Your task to perform on an android device: open wifi settings Image 0: 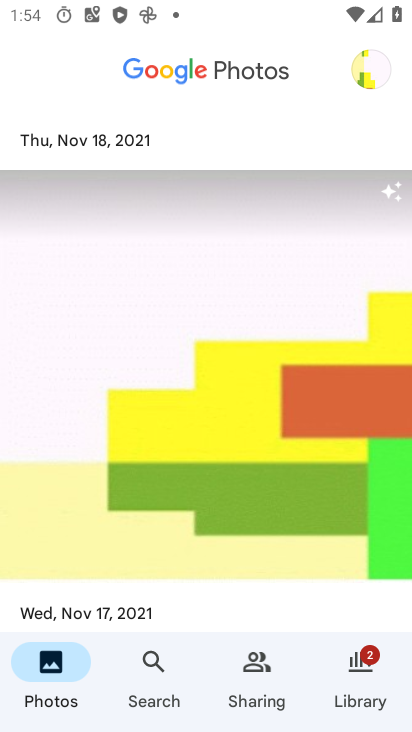
Step 0: press home button
Your task to perform on an android device: open wifi settings Image 1: 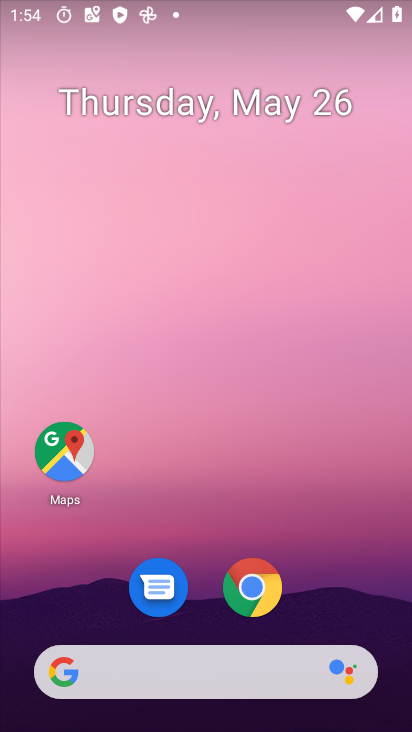
Step 1: drag from (387, 622) to (403, 331)
Your task to perform on an android device: open wifi settings Image 2: 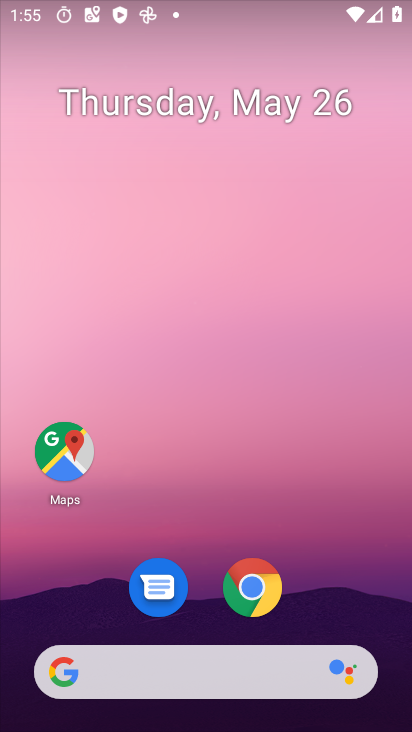
Step 2: drag from (359, 610) to (383, 192)
Your task to perform on an android device: open wifi settings Image 3: 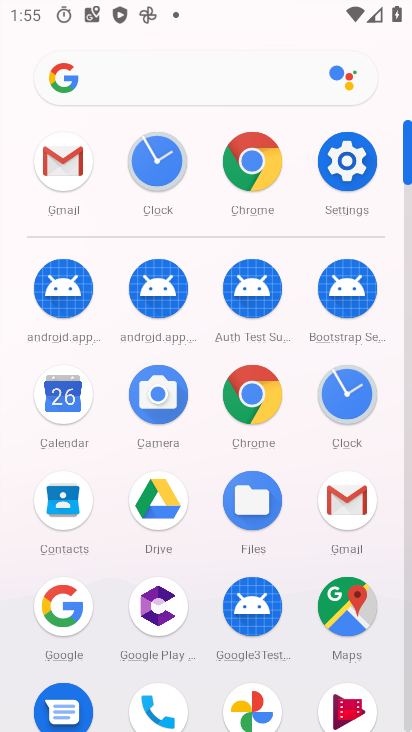
Step 3: click (349, 185)
Your task to perform on an android device: open wifi settings Image 4: 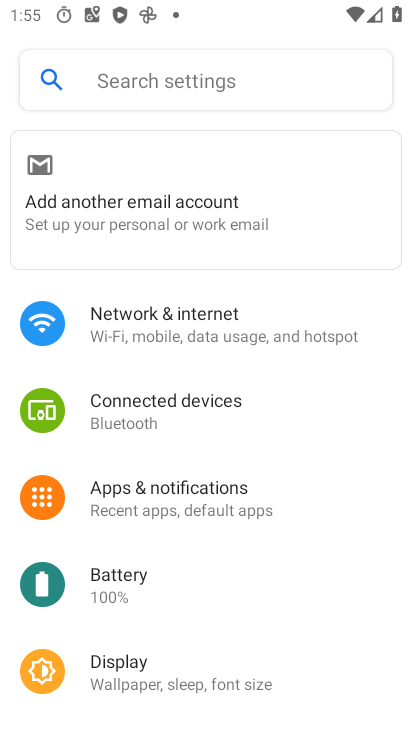
Step 4: drag from (335, 567) to (334, 471)
Your task to perform on an android device: open wifi settings Image 5: 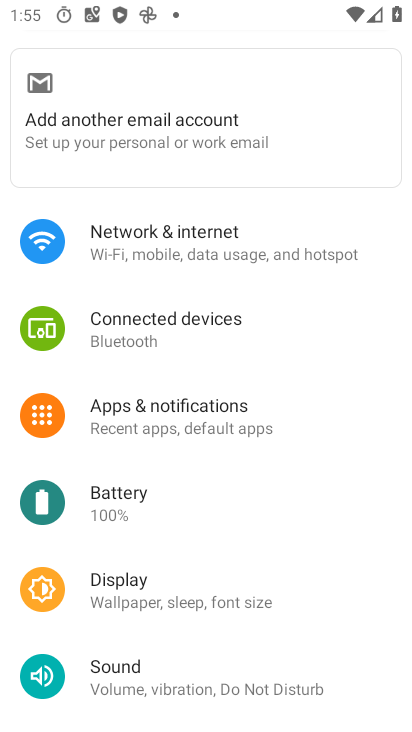
Step 5: drag from (344, 586) to (347, 491)
Your task to perform on an android device: open wifi settings Image 6: 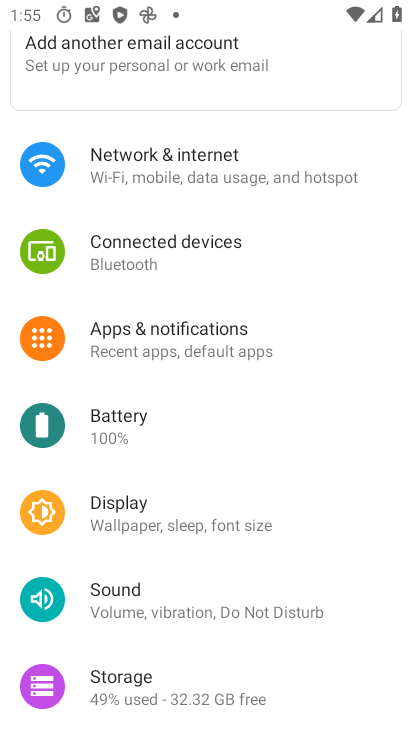
Step 6: drag from (347, 569) to (355, 426)
Your task to perform on an android device: open wifi settings Image 7: 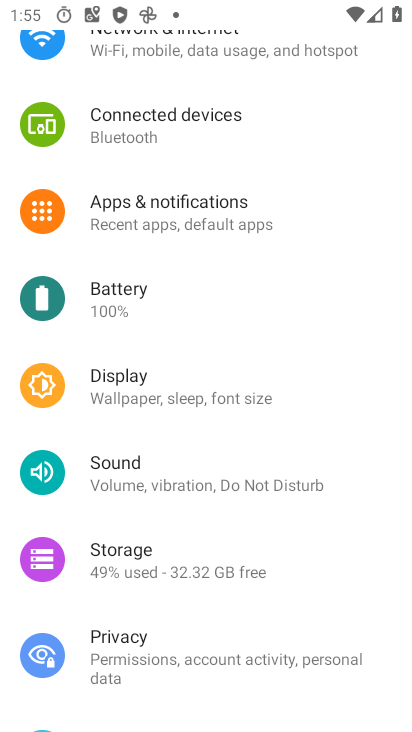
Step 7: drag from (354, 573) to (359, 463)
Your task to perform on an android device: open wifi settings Image 8: 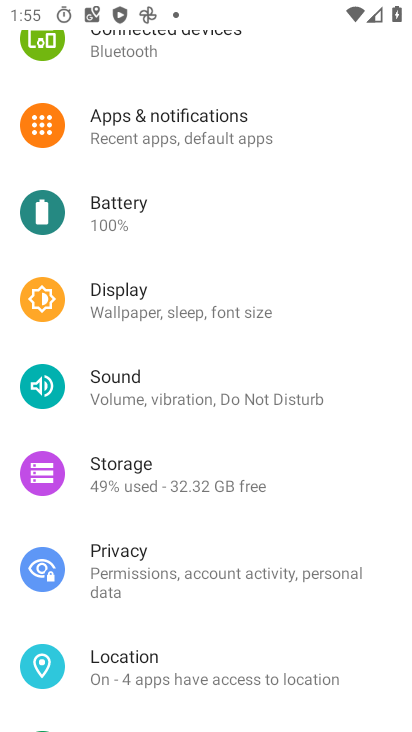
Step 8: drag from (353, 587) to (362, 488)
Your task to perform on an android device: open wifi settings Image 9: 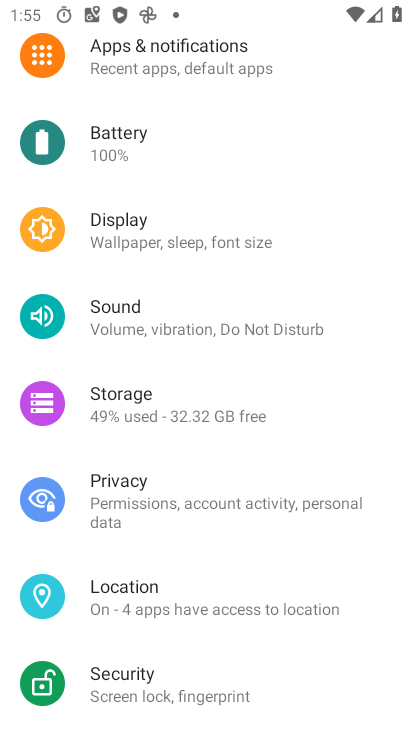
Step 9: drag from (358, 583) to (358, 489)
Your task to perform on an android device: open wifi settings Image 10: 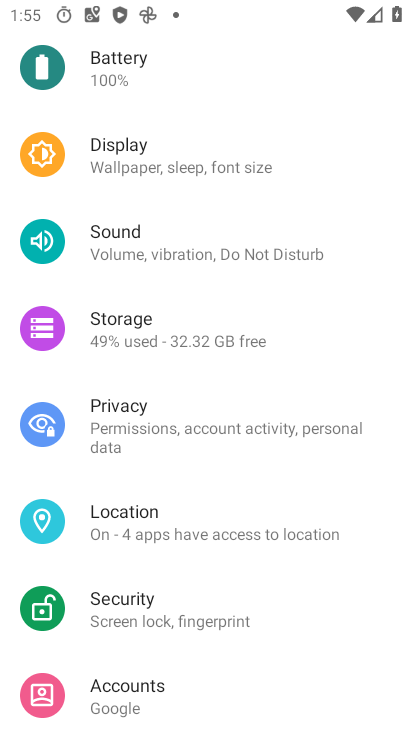
Step 10: drag from (363, 602) to (373, 504)
Your task to perform on an android device: open wifi settings Image 11: 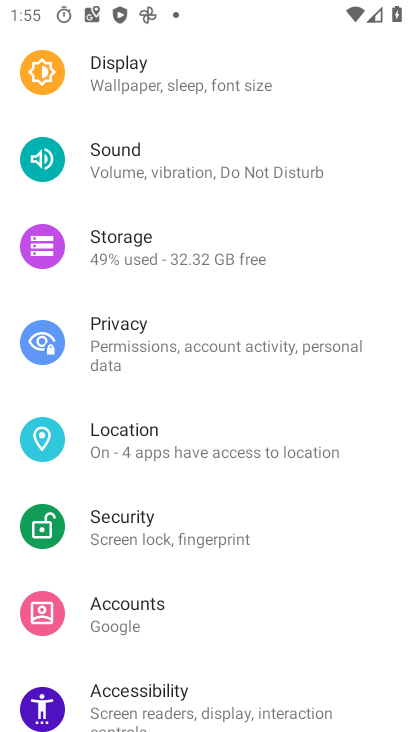
Step 11: drag from (367, 602) to (368, 509)
Your task to perform on an android device: open wifi settings Image 12: 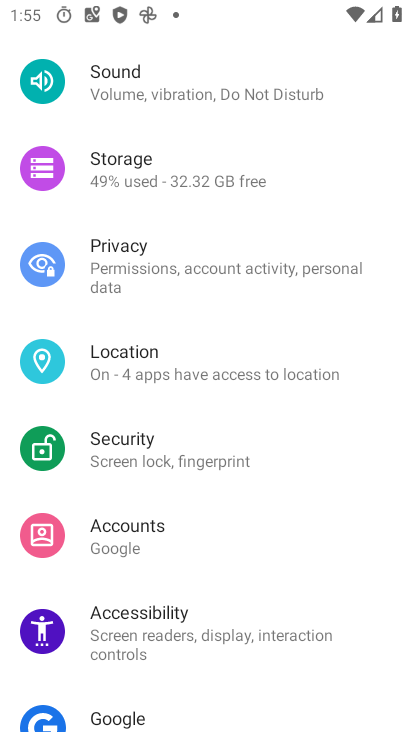
Step 12: drag from (362, 580) to (365, 435)
Your task to perform on an android device: open wifi settings Image 13: 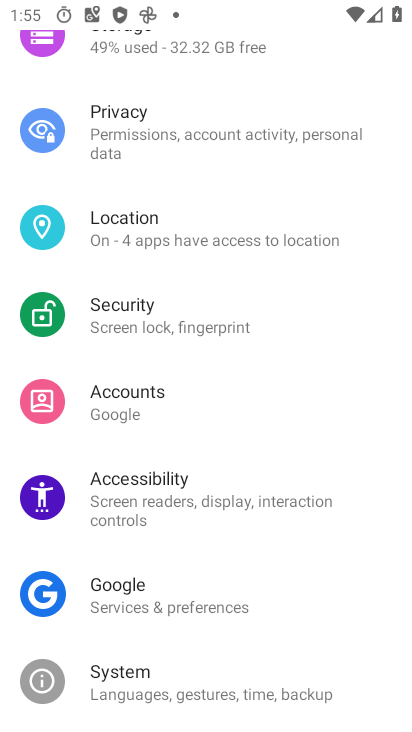
Step 13: drag from (362, 564) to (365, 454)
Your task to perform on an android device: open wifi settings Image 14: 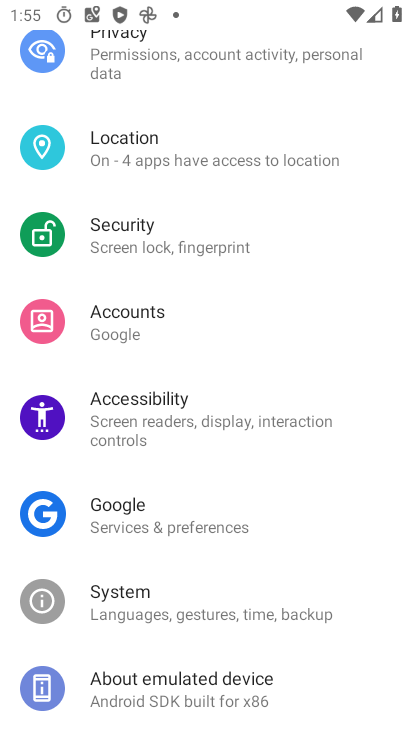
Step 14: drag from (363, 400) to (363, 518)
Your task to perform on an android device: open wifi settings Image 15: 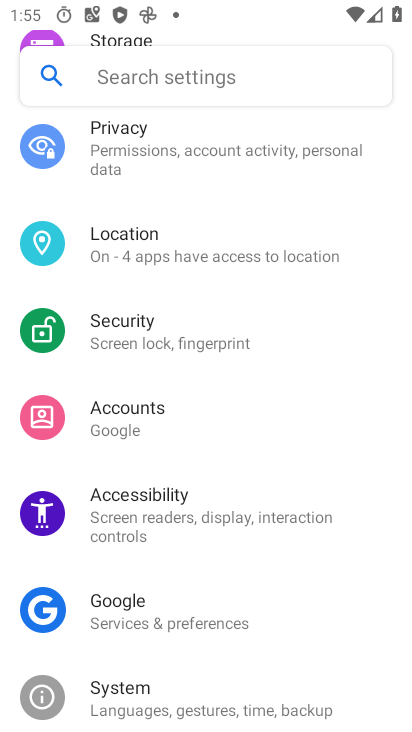
Step 15: drag from (361, 395) to (358, 488)
Your task to perform on an android device: open wifi settings Image 16: 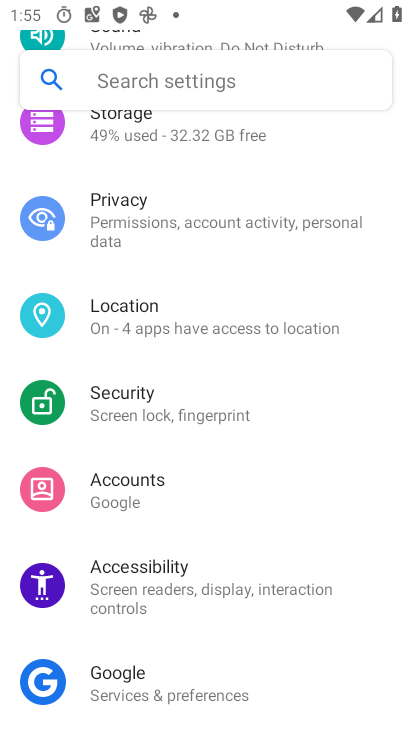
Step 16: drag from (363, 358) to (363, 452)
Your task to perform on an android device: open wifi settings Image 17: 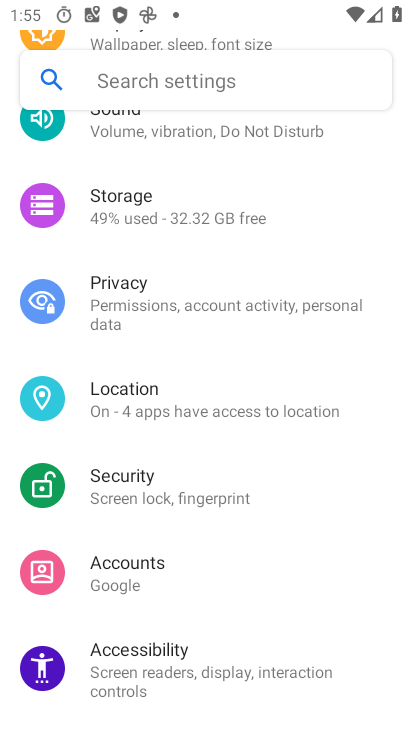
Step 17: drag from (360, 354) to (360, 427)
Your task to perform on an android device: open wifi settings Image 18: 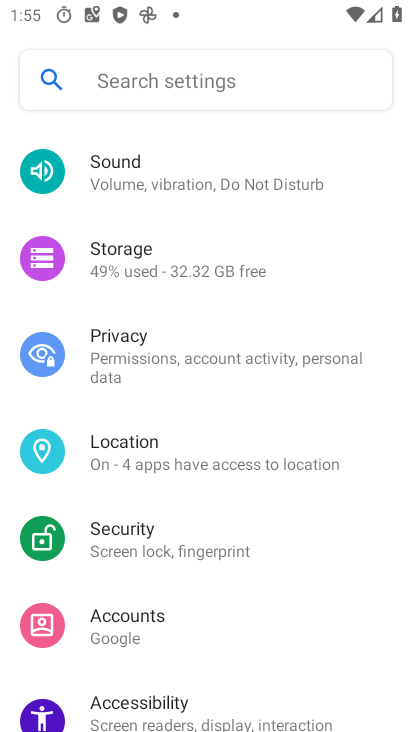
Step 18: drag from (363, 301) to (365, 422)
Your task to perform on an android device: open wifi settings Image 19: 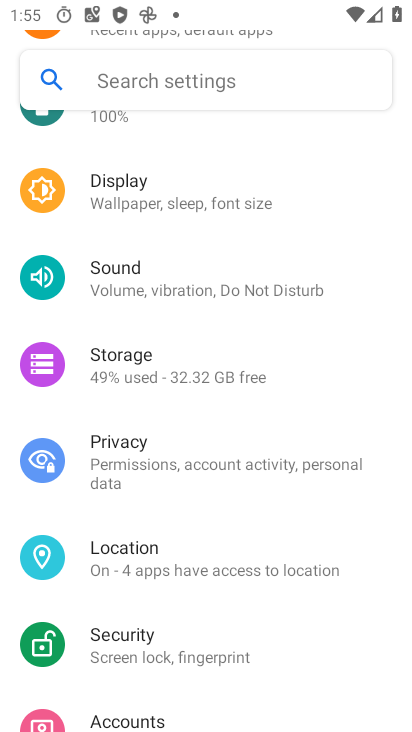
Step 19: drag from (375, 315) to (377, 407)
Your task to perform on an android device: open wifi settings Image 20: 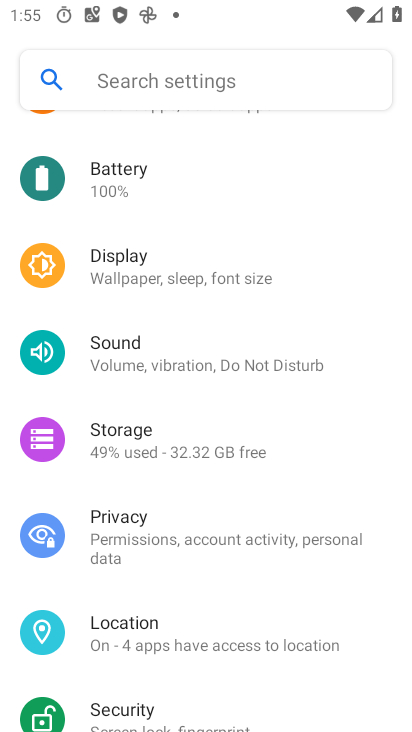
Step 20: drag from (368, 306) to (367, 395)
Your task to perform on an android device: open wifi settings Image 21: 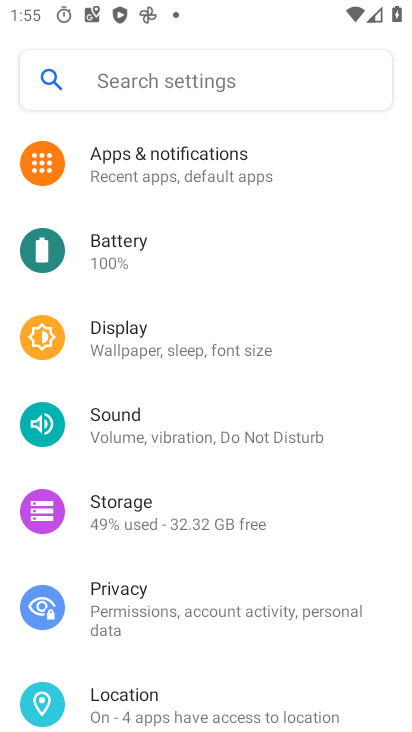
Step 21: drag from (362, 284) to (363, 430)
Your task to perform on an android device: open wifi settings Image 22: 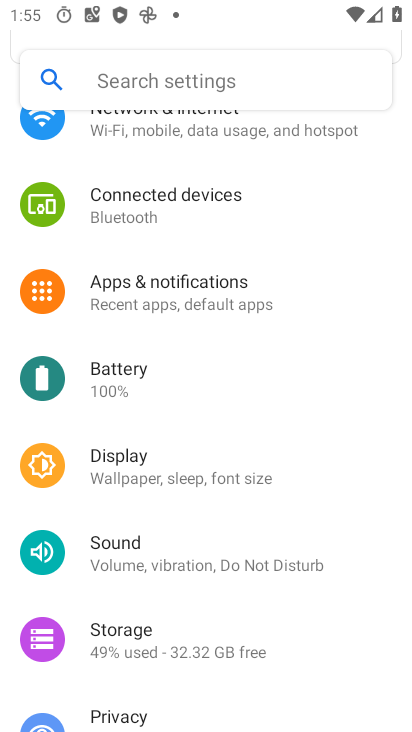
Step 22: drag from (348, 277) to (341, 397)
Your task to perform on an android device: open wifi settings Image 23: 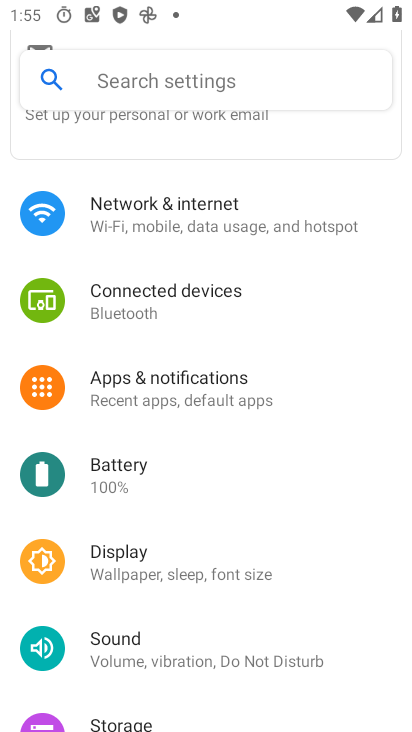
Step 23: click (302, 223)
Your task to perform on an android device: open wifi settings Image 24: 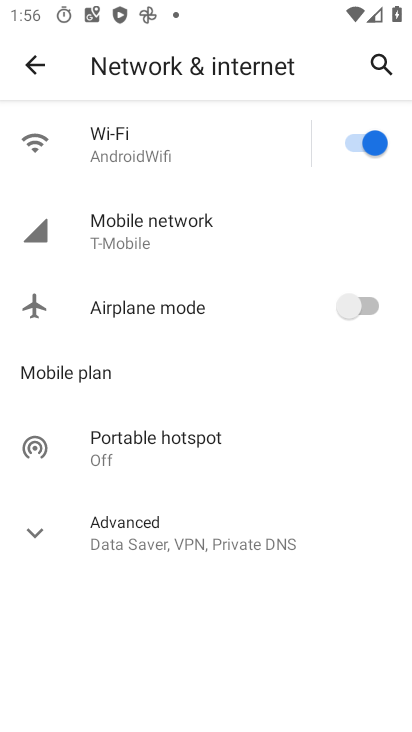
Step 24: click (133, 139)
Your task to perform on an android device: open wifi settings Image 25: 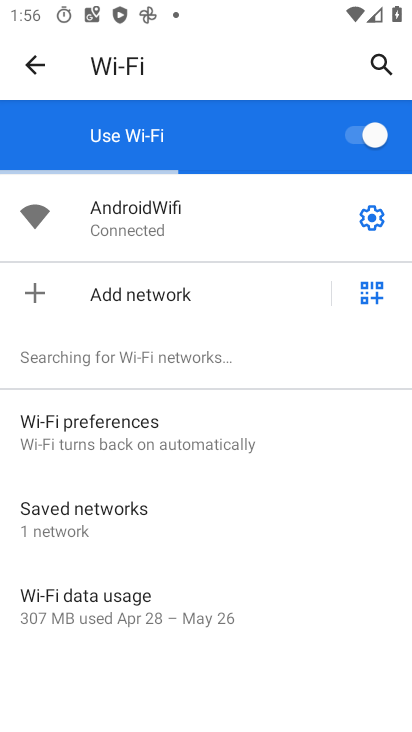
Step 25: task complete